Your task to perform on an android device: toggle pop-ups in chrome Image 0: 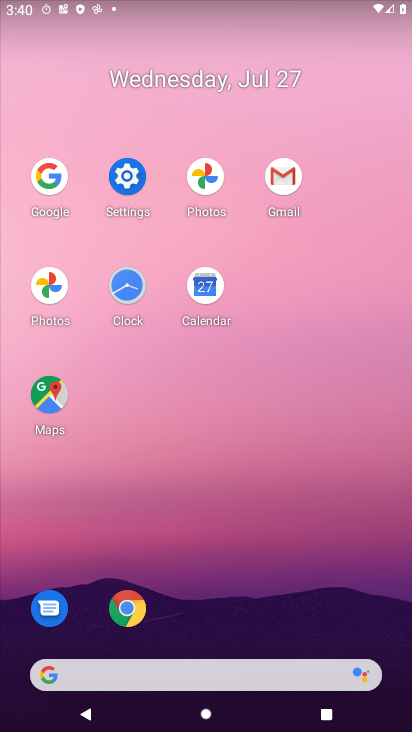
Step 0: click (124, 619)
Your task to perform on an android device: toggle pop-ups in chrome Image 1: 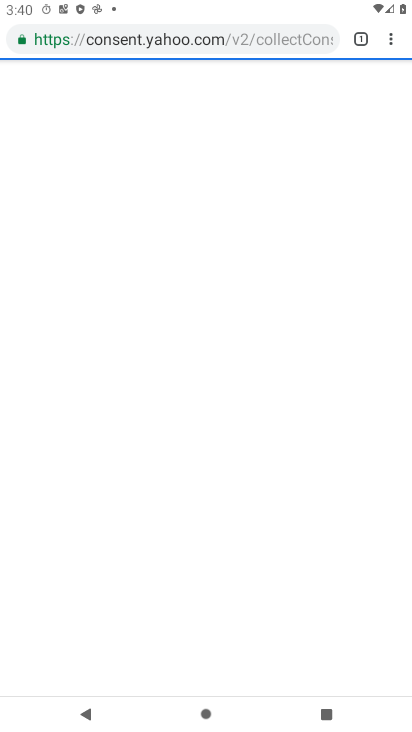
Step 1: click (391, 43)
Your task to perform on an android device: toggle pop-ups in chrome Image 2: 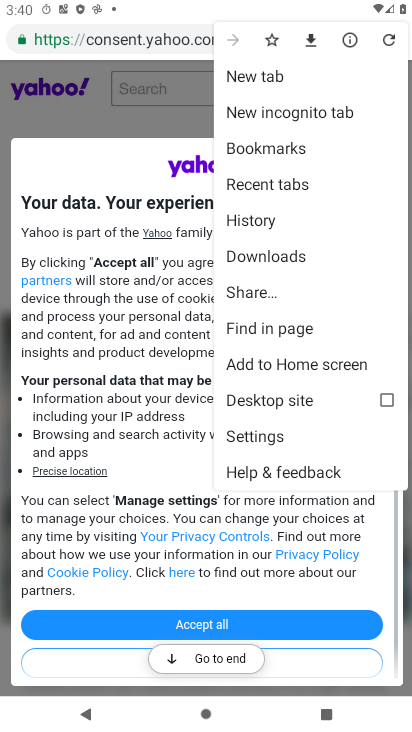
Step 2: click (332, 430)
Your task to perform on an android device: toggle pop-ups in chrome Image 3: 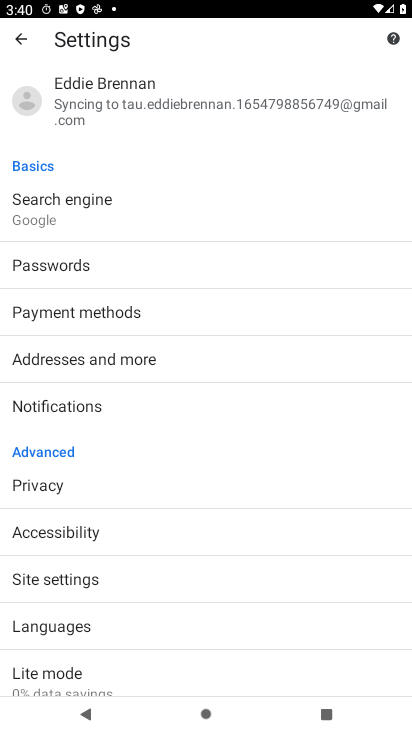
Step 3: click (115, 586)
Your task to perform on an android device: toggle pop-ups in chrome Image 4: 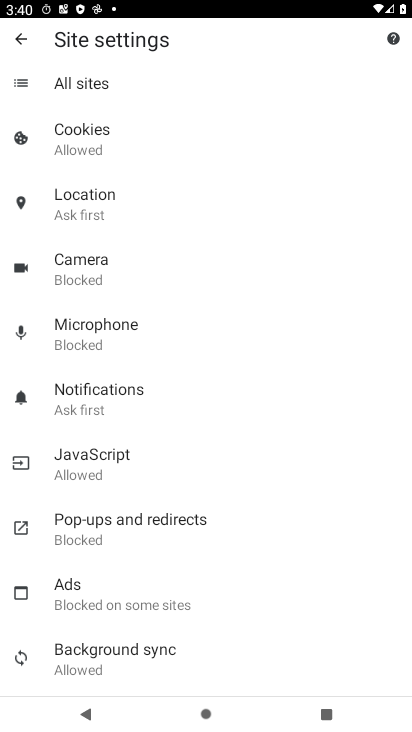
Step 4: click (130, 534)
Your task to perform on an android device: toggle pop-ups in chrome Image 5: 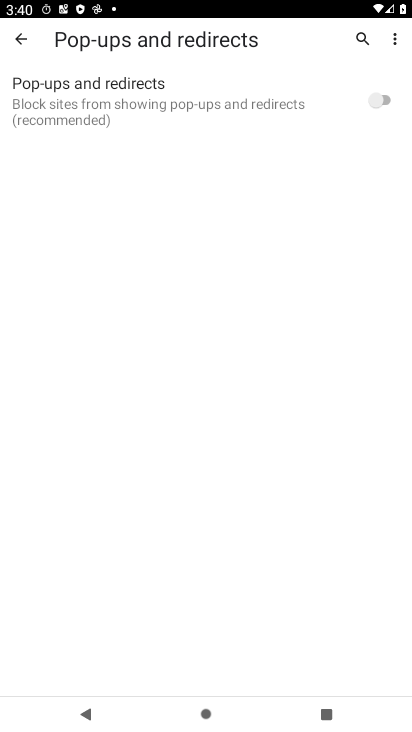
Step 5: click (382, 108)
Your task to perform on an android device: toggle pop-ups in chrome Image 6: 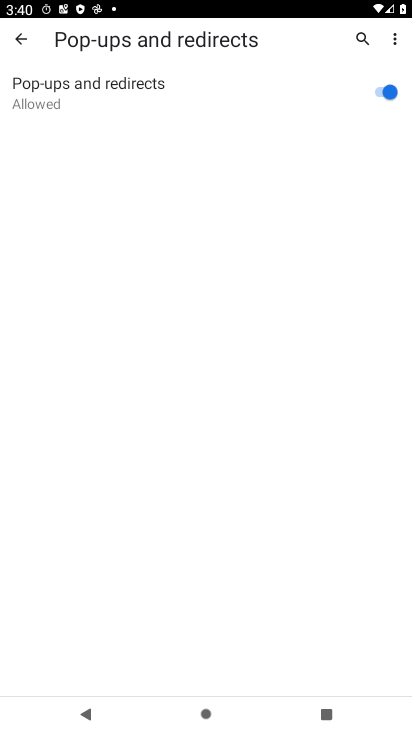
Step 6: task complete